Your task to perform on an android device: Open Yahoo.com Image 0: 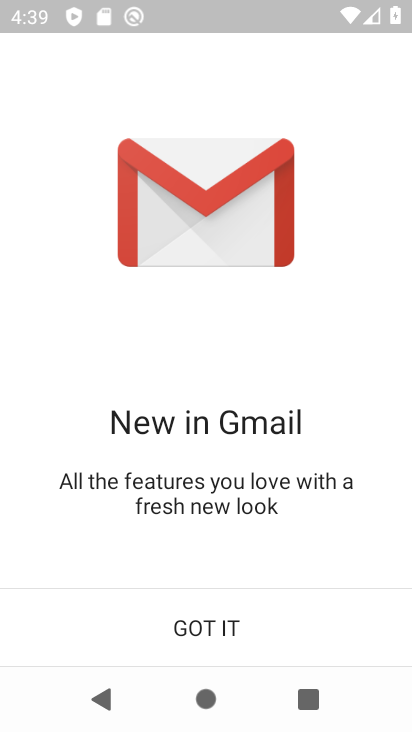
Step 0: click (262, 629)
Your task to perform on an android device: Open Yahoo.com Image 1: 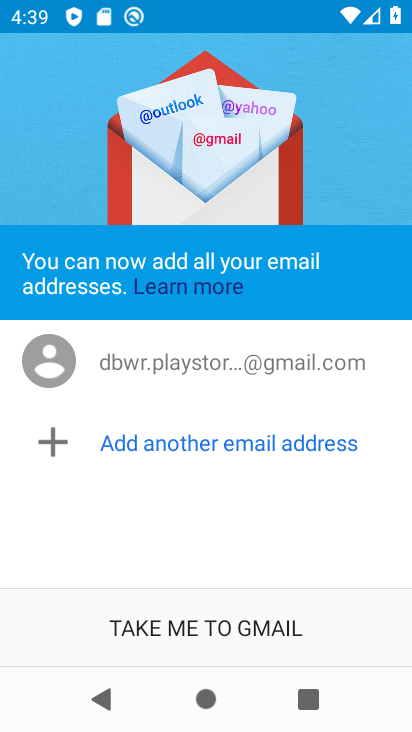
Step 1: press home button
Your task to perform on an android device: Open Yahoo.com Image 2: 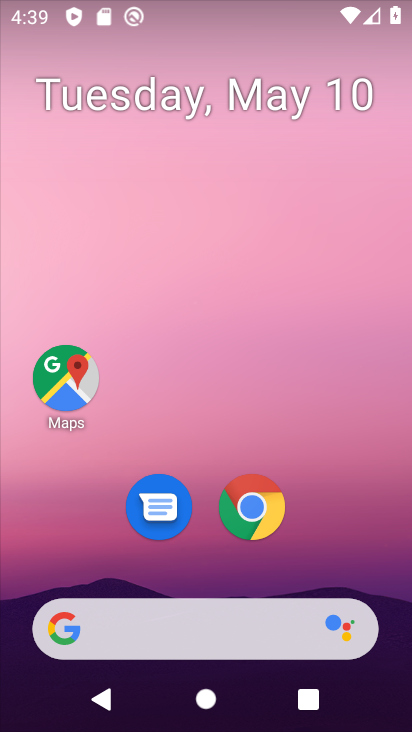
Step 2: click (251, 505)
Your task to perform on an android device: Open Yahoo.com Image 3: 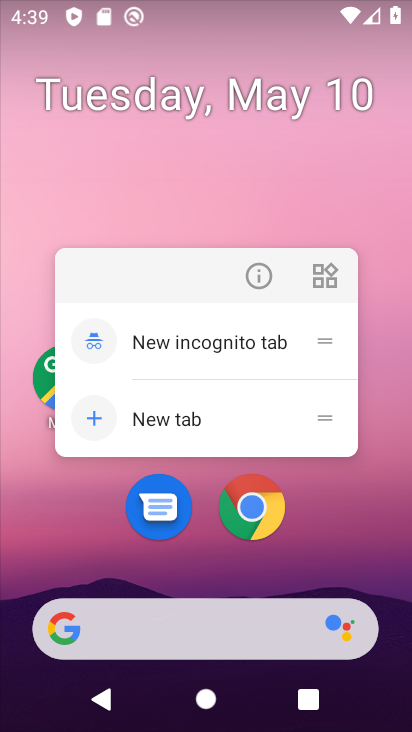
Step 3: click (269, 499)
Your task to perform on an android device: Open Yahoo.com Image 4: 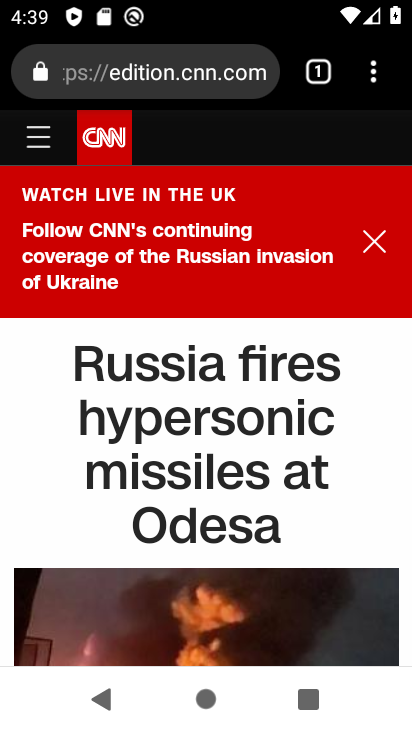
Step 4: click (229, 73)
Your task to perform on an android device: Open Yahoo.com Image 5: 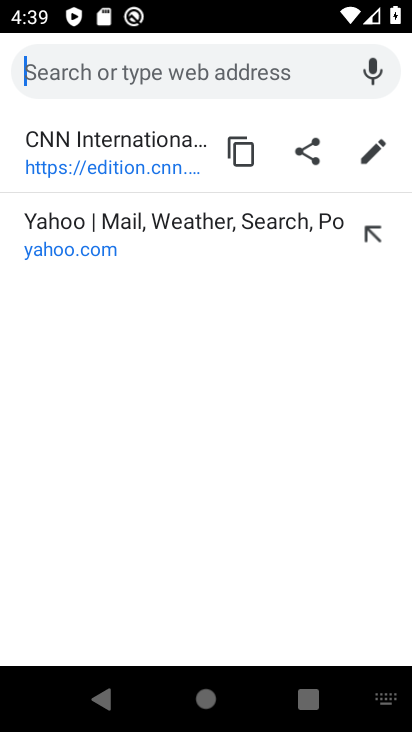
Step 5: type "Yahoo.com"
Your task to perform on an android device: Open Yahoo.com Image 6: 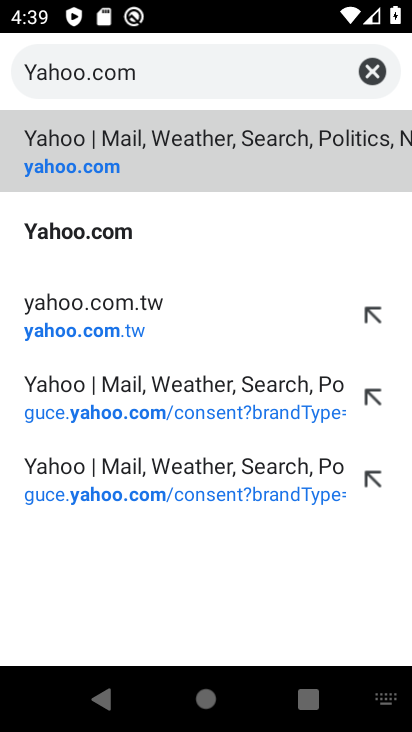
Step 6: click (124, 244)
Your task to perform on an android device: Open Yahoo.com Image 7: 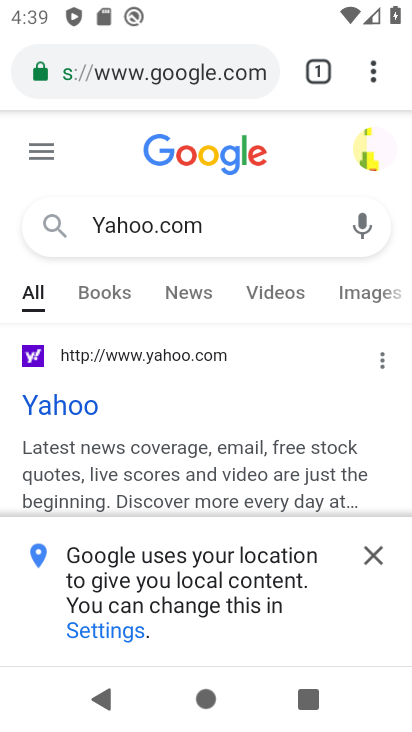
Step 7: task complete